Your task to perform on an android device: Turn off the flashlight Image 0: 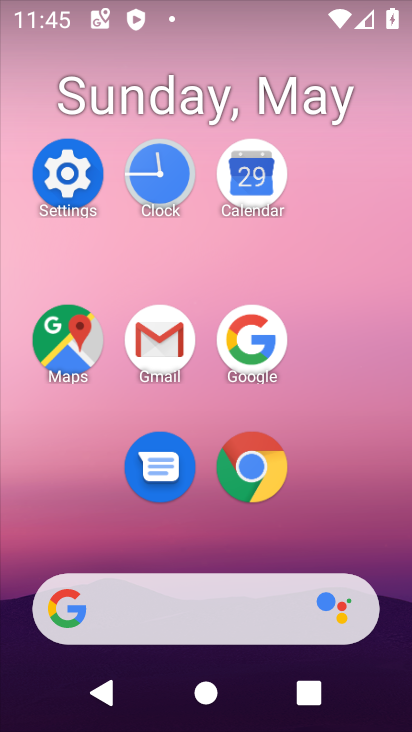
Step 0: drag from (291, 3) to (243, 589)
Your task to perform on an android device: Turn off the flashlight Image 1: 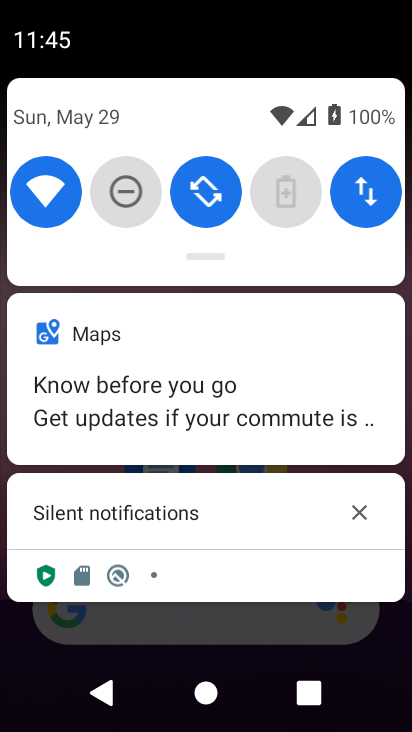
Step 1: task complete